Your task to perform on an android device: Turn off the flashlight Image 0: 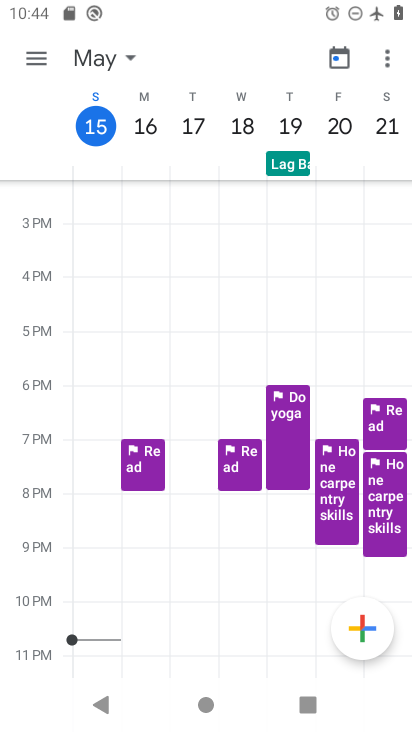
Step 0: press home button
Your task to perform on an android device: Turn off the flashlight Image 1: 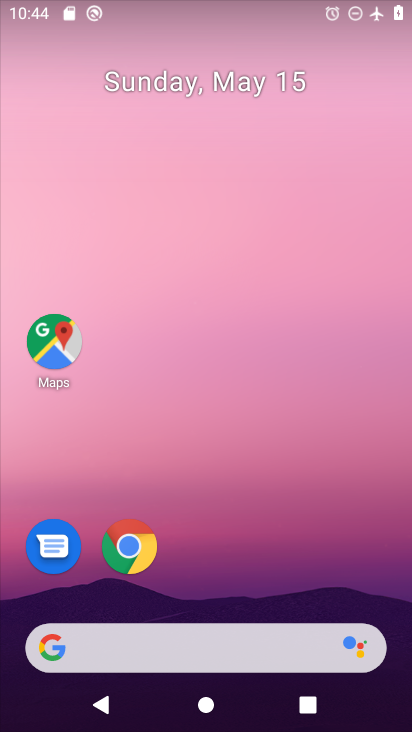
Step 1: task complete